Your task to perform on an android device: Set the phone to "Do not disturb". Image 0: 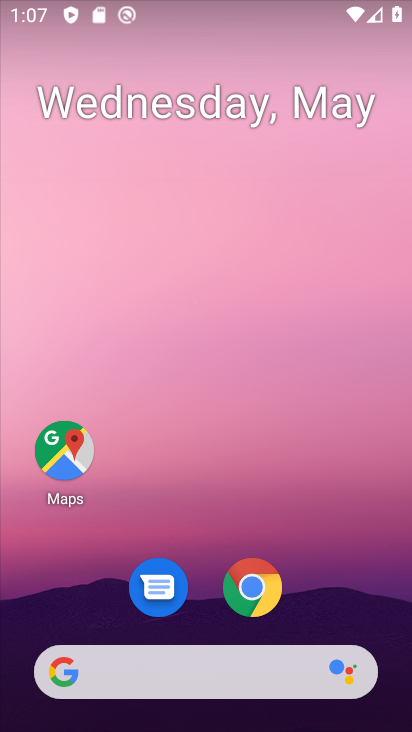
Step 0: drag from (302, 631) to (349, 241)
Your task to perform on an android device: Set the phone to "Do not disturb". Image 1: 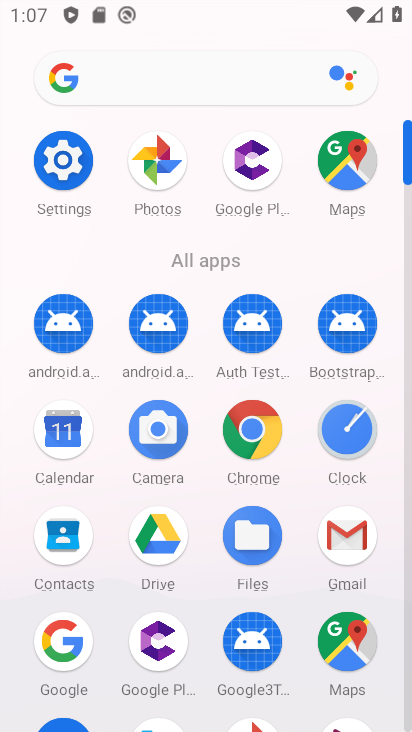
Step 1: click (80, 178)
Your task to perform on an android device: Set the phone to "Do not disturb". Image 2: 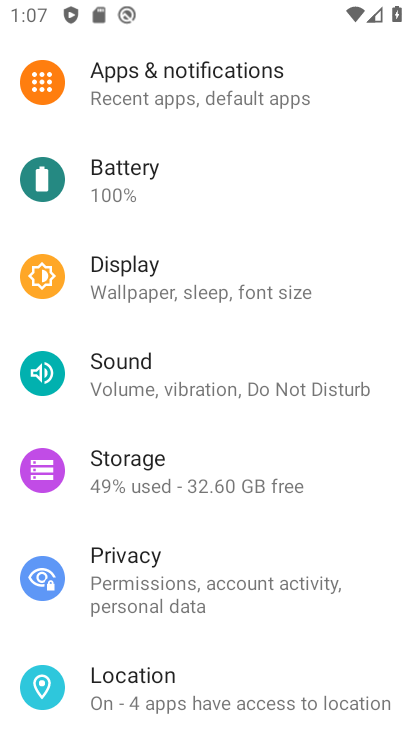
Step 2: click (135, 387)
Your task to perform on an android device: Set the phone to "Do not disturb". Image 3: 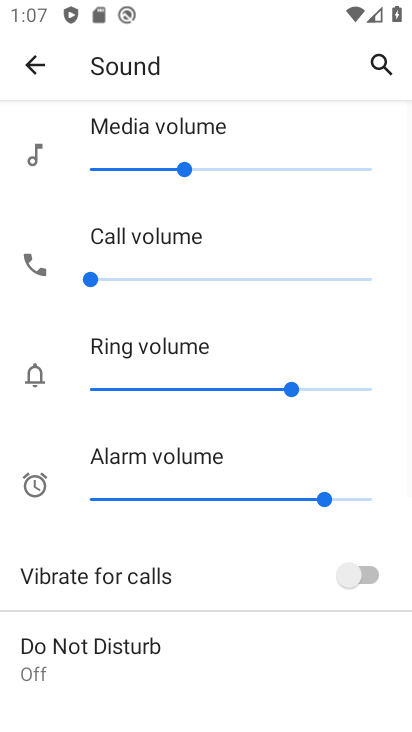
Step 3: click (127, 659)
Your task to perform on an android device: Set the phone to "Do not disturb". Image 4: 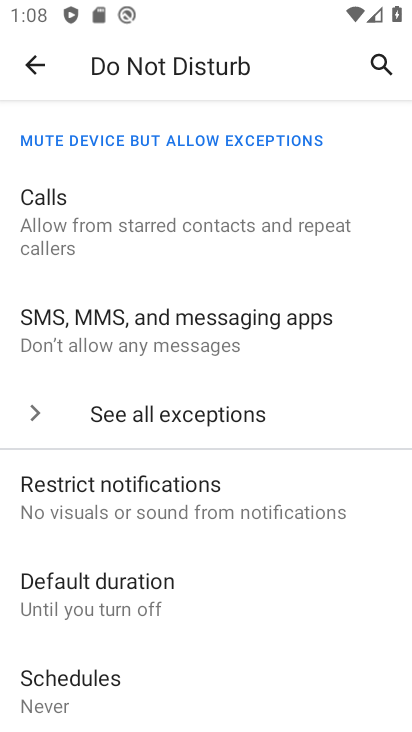
Step 4: drag from (127, 659) to (209, 37)
Your task to perform on an android device: Set the phone to "Do not disturb". Image 5: 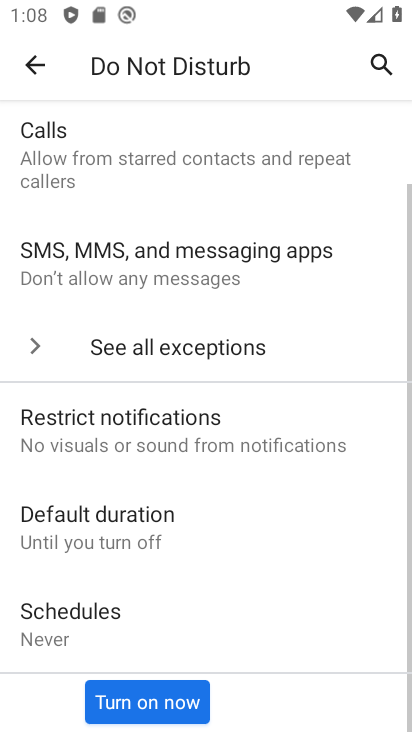
Step 5: drag from (193, 630) to (220, 194)
Your task to perform on an android device: Set the phone to "Do not disturb". Image 6: 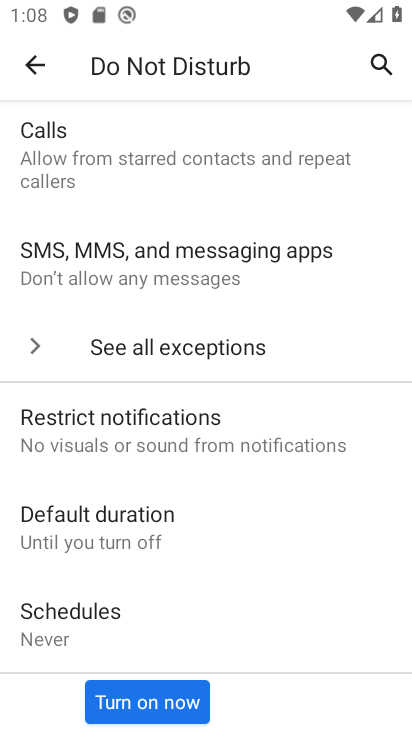
Step 6: click (128, 695)
Your task to perform on an android device: Set the phone to "Do not disturb". Image 7: 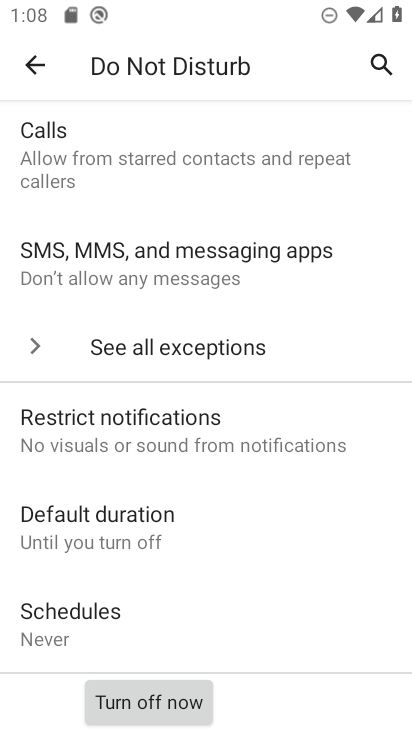
Step 7: task complete